Your task to perform on an android device: Find coffee shops on Maps Image 0: 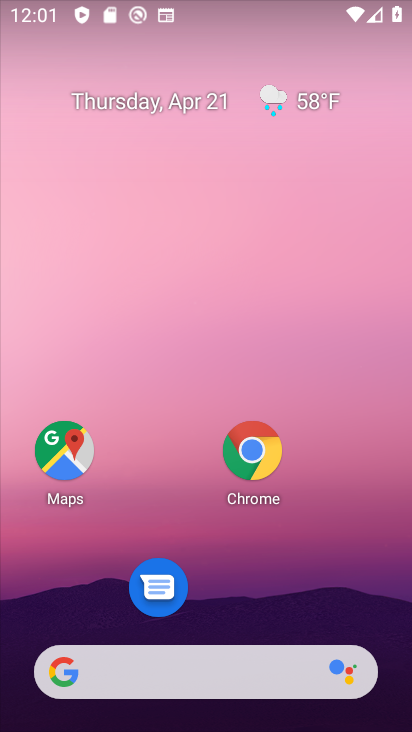
Step 0: click (44, 442)
Your task to perform on an android device: Find coffee shops on Maps Image 1: 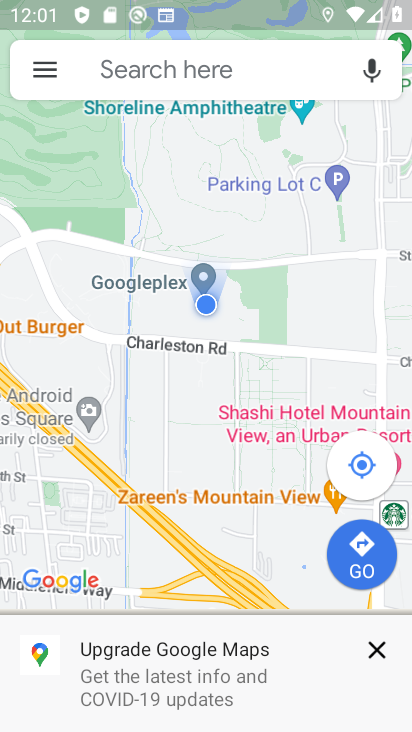
Step 1: click (162, 74)
Your task to perform on an android device: Find coffee shops on Maps Image 2: 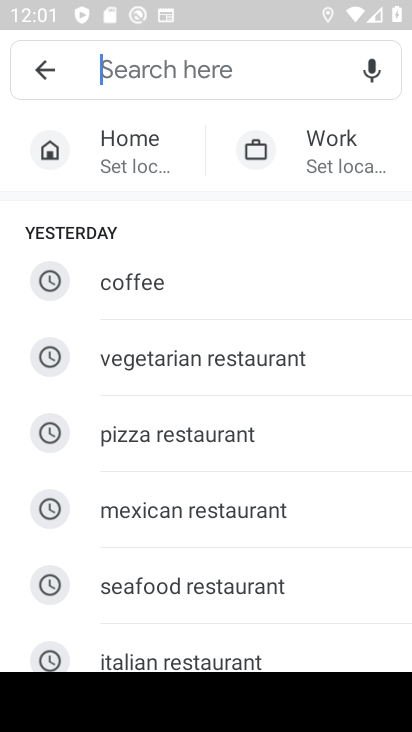
Step 2: click (404, 294)
Your task to perform on an android device: Find coffee shops on Maps Image 3: 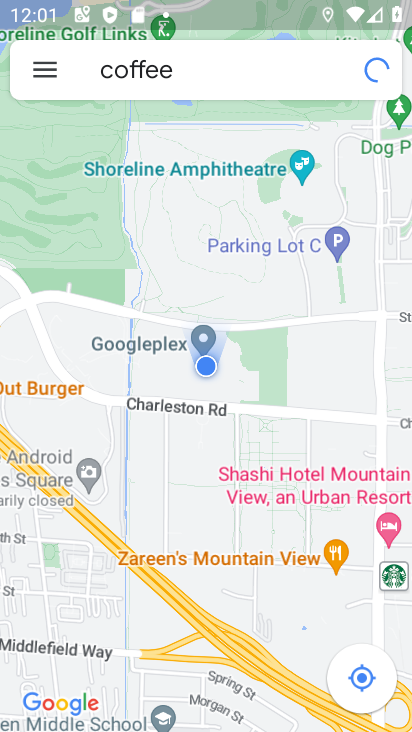
Step 3: task complete